Your task to perform on an android device: create a new album in the google photos Image 0: 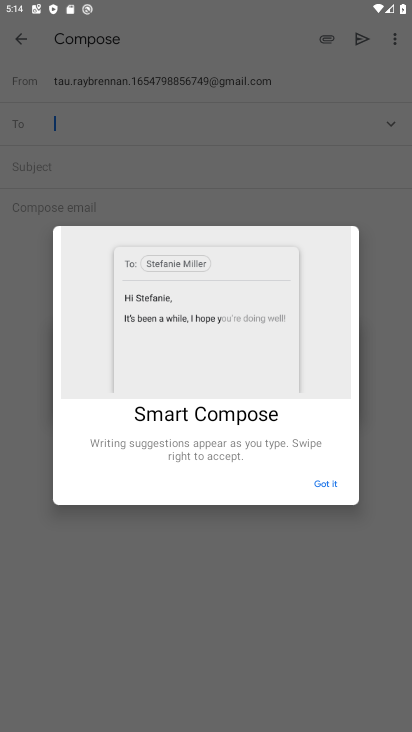
Step 0: press home button
Your task to perform on an android device: create a new album in the google photos Image 1: 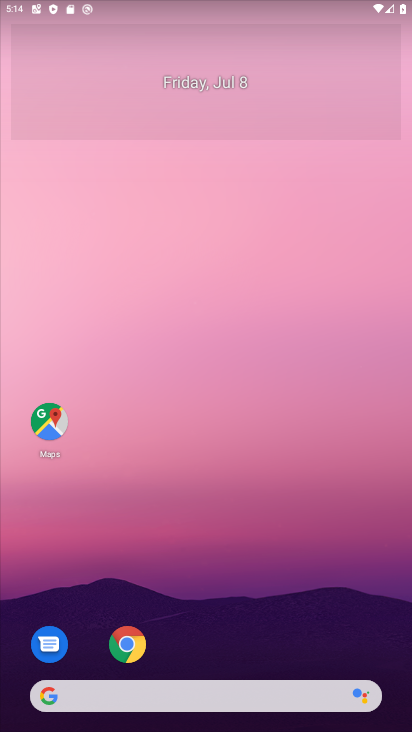
Step 1: drag from (296, 454) to (316, 10)
Your task to perform on an android device: create a new album in the google photos Image 2: 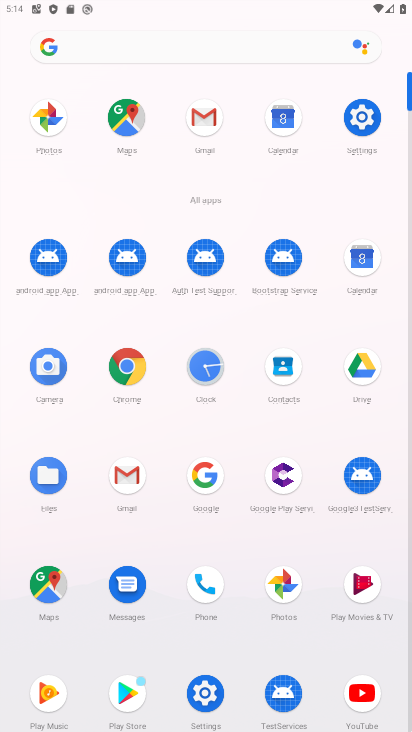
Step 2: click (270, 596)
Your task to perform on an android device: create a new album in the google photos Image 3: 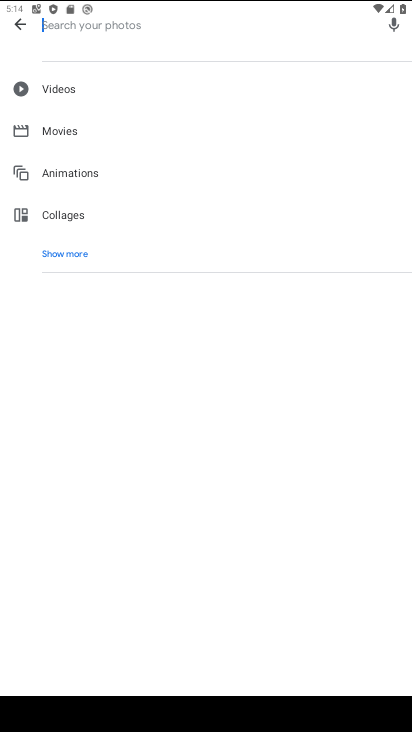
Step 3: click (21, 28)
Your task to perform on an android device: create a new album in the google photos Image 4: 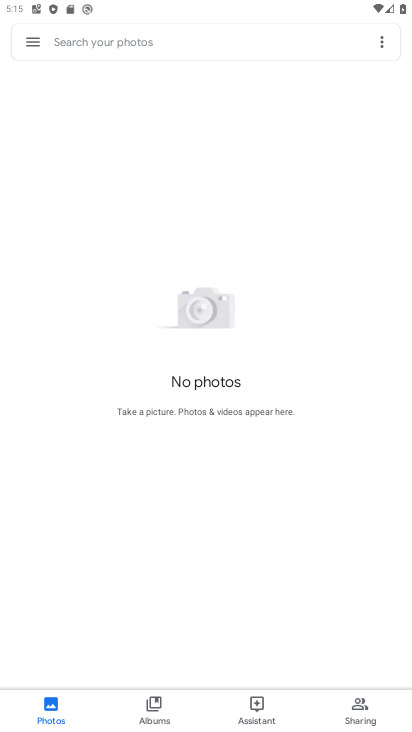
Step 4: click (168, 714)
Your task to perform on an android device: create a new album in the google photos Image 5: 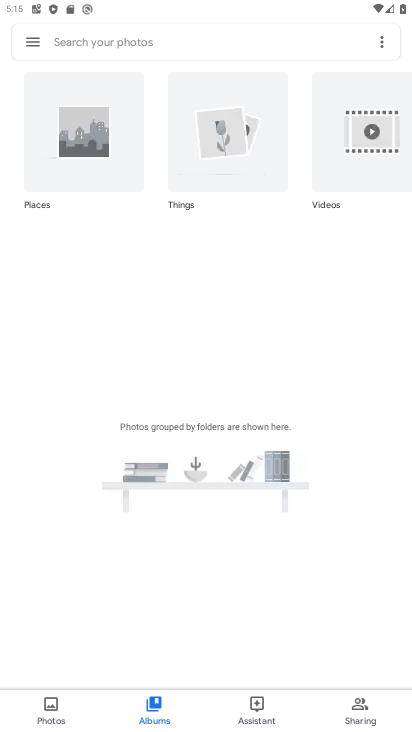
Step 5: click (112, 138)
Your task to perform on an android device: create a new album in the google photos Image 6: 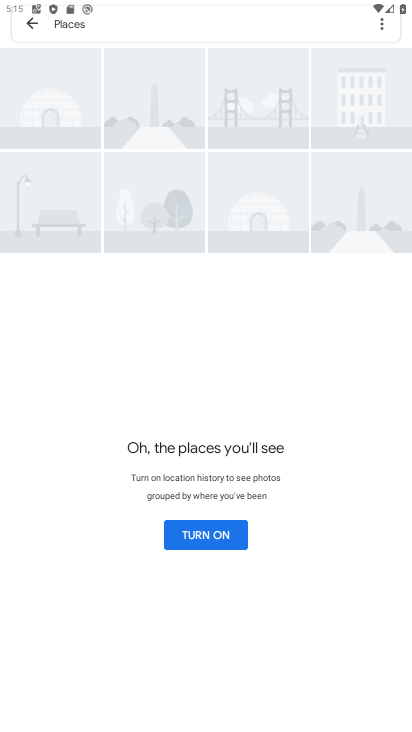
Step 6: click (24, 22)
Your task to perform on an android device: create a new album in the google photos Image 7: 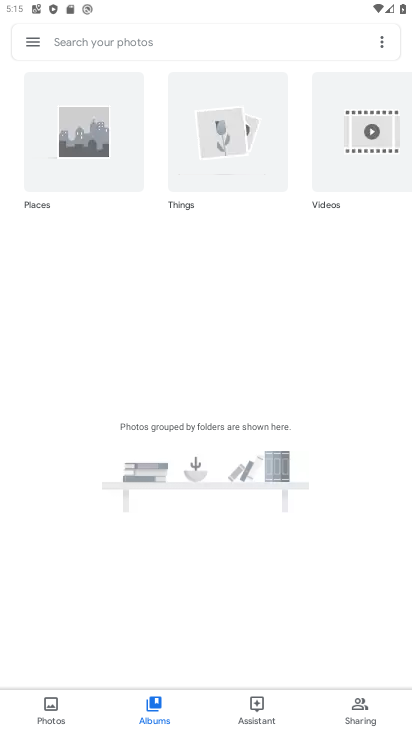
Step 7: click (383, 41)
Your task to perform on an android device: create a new album in the google photos Image 8: 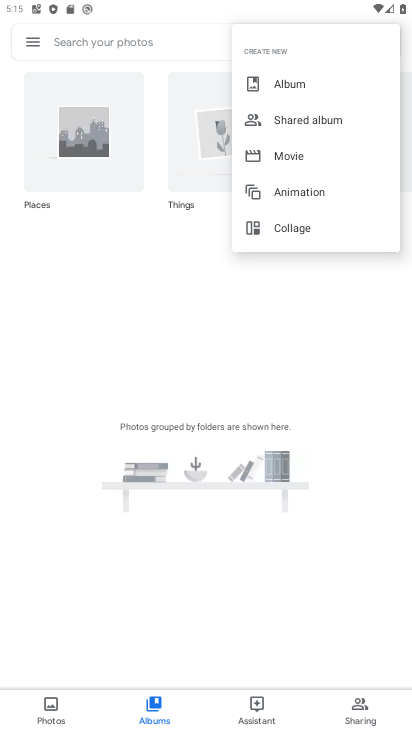
Step 8: click (322, 91)
Your task to perform on an android device: create a new album in the google photos Image 9: 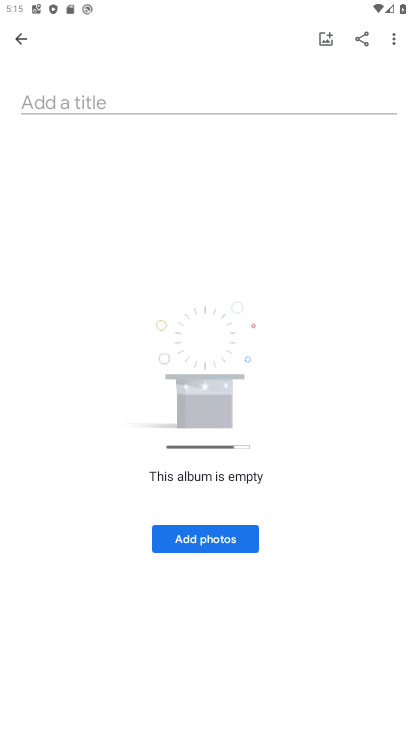
Step 9: click (94, 101)
Your task to perform on an android device: create a new album in the google photos Image 10: 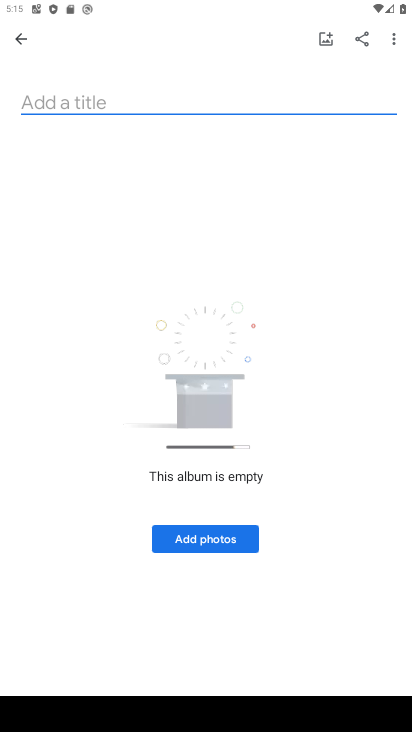
Step 10: type "N"
Your task to perform on an android device: create a new album in the google photos Image 11: 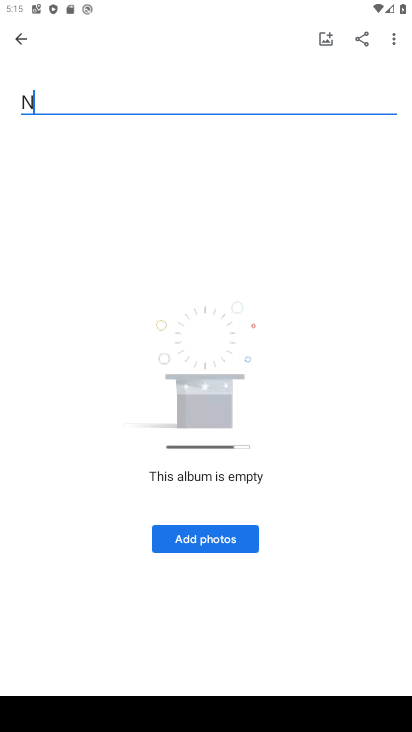
Step 11: type ""
Your task to perform on an android device: create a new album in the google photos Image 12: 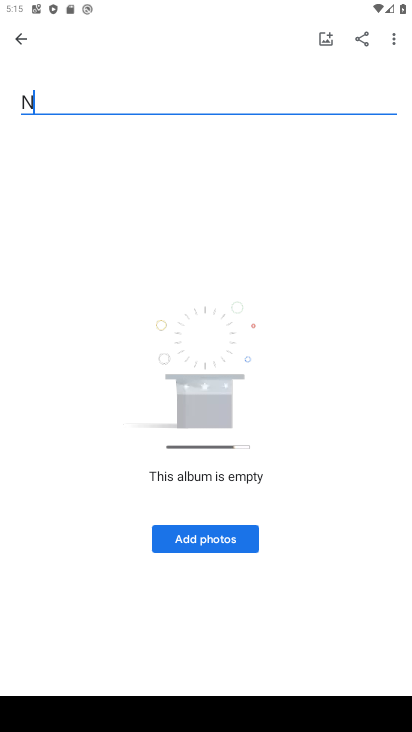
Step 12: press enter
Your task to perform on an android device: create a new album in the google photos Image 13: 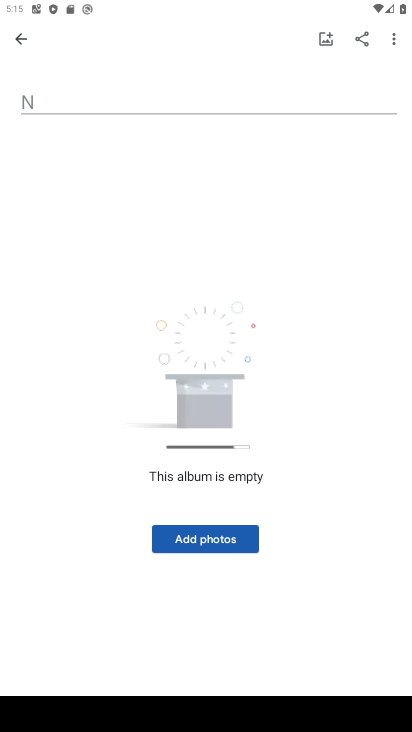
Step 13: click (18, 38)
Your task to perform on an android device: create a new album in the google photos Image 14: 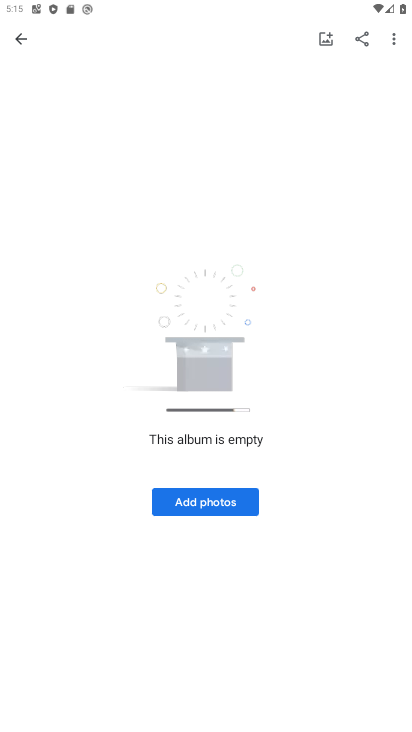
Step 14: click (20, 43)
Your task to perform on an android device: create a new album in the google photos Image 15: 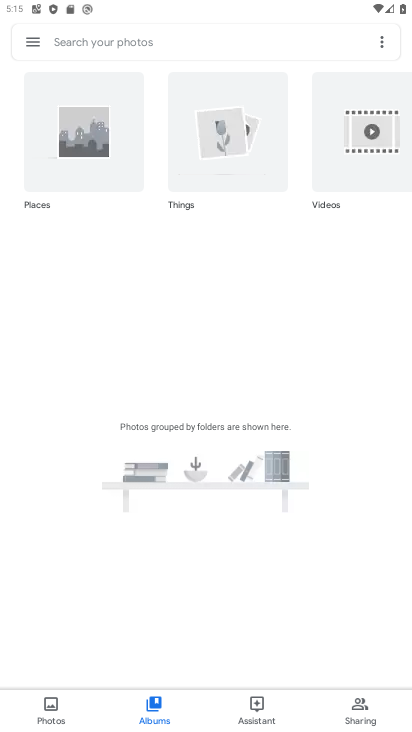
Step 15: task complete